Your task to perform on an android device: Go to sound settings Image 0: 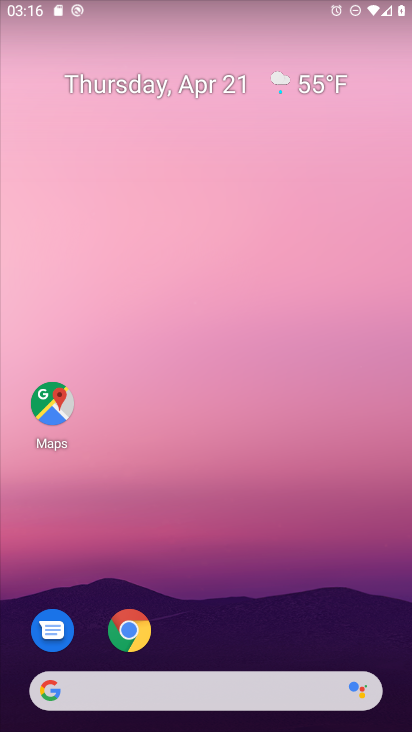
Step 0: drag from (273, 598) to (273, 18)
Your task to perform on an android device: Go to sound settings Image 1: 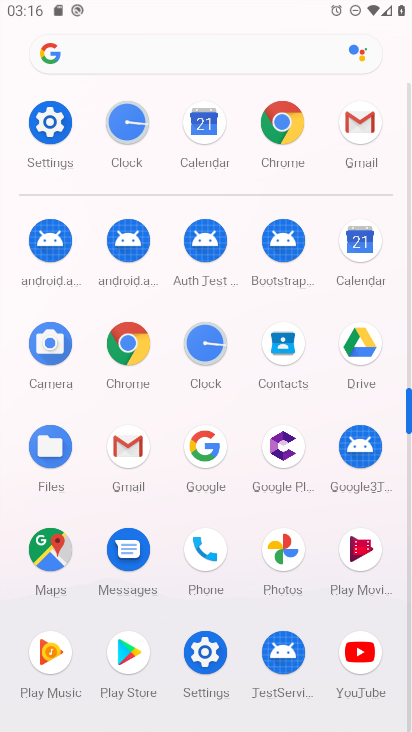
Step 1: click (199, 665)
Your task to perform on an android device: Go to sound settings Image 2: 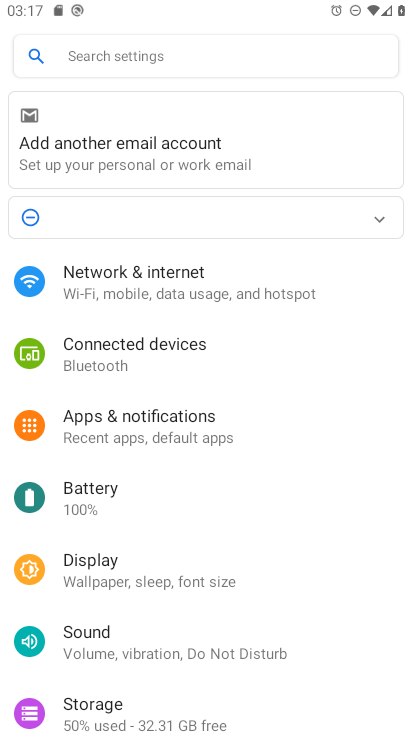
Step 2: click (232, 635)
Your task to perform on an android device: Go to sound settings Image 3: 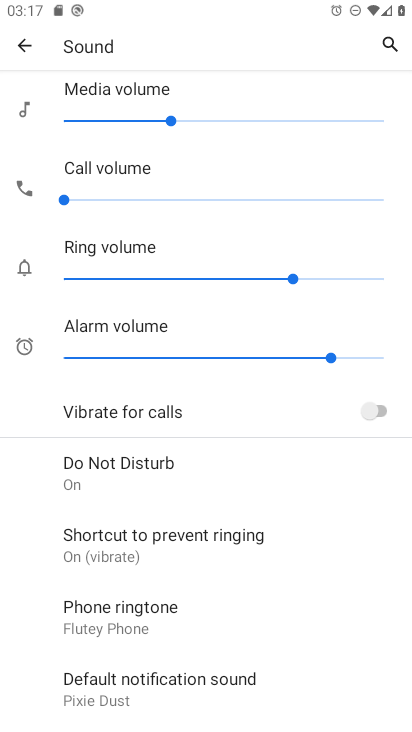
Step 3: task complete